Your task to perform on an android device: check google app version Image 0: 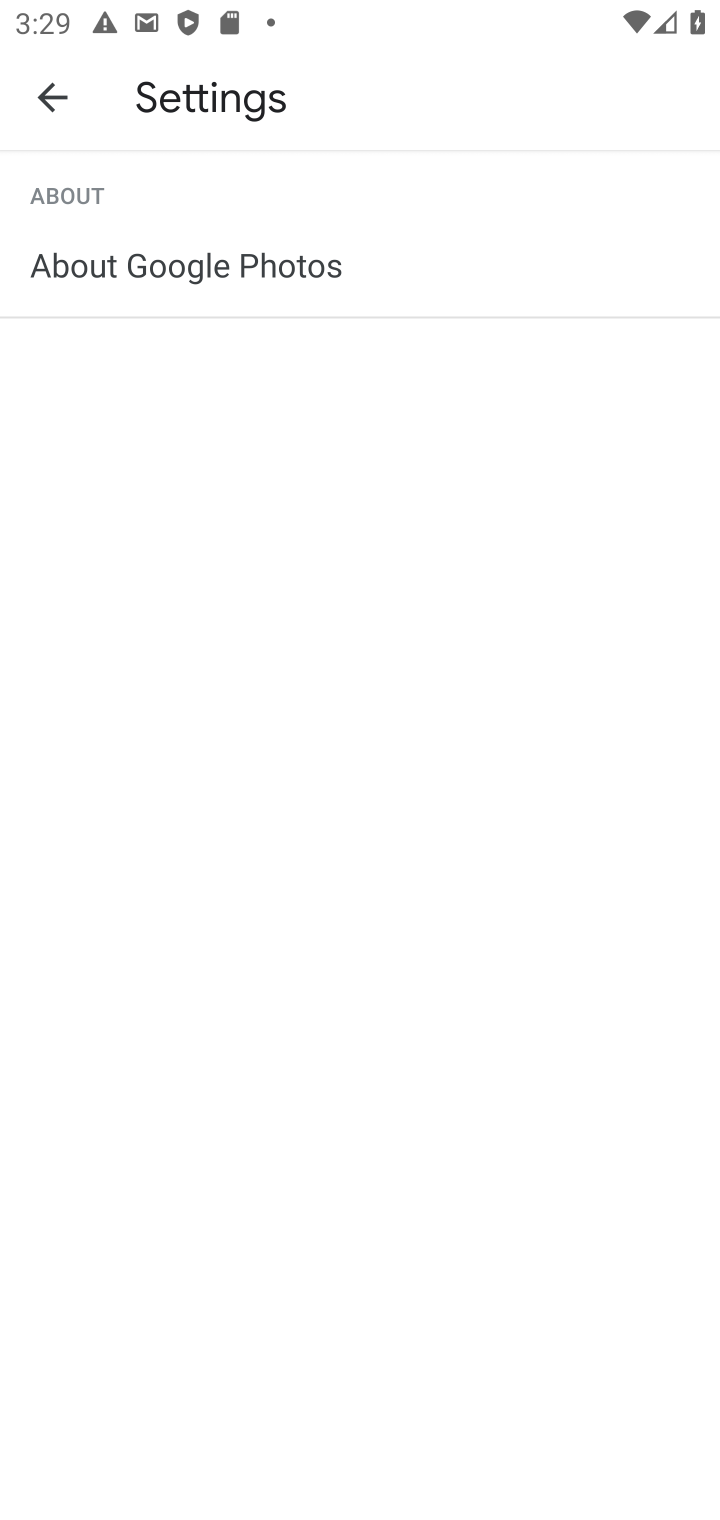
Step 0: press back button
Your task to perform on an android device: check google app version Image 1: 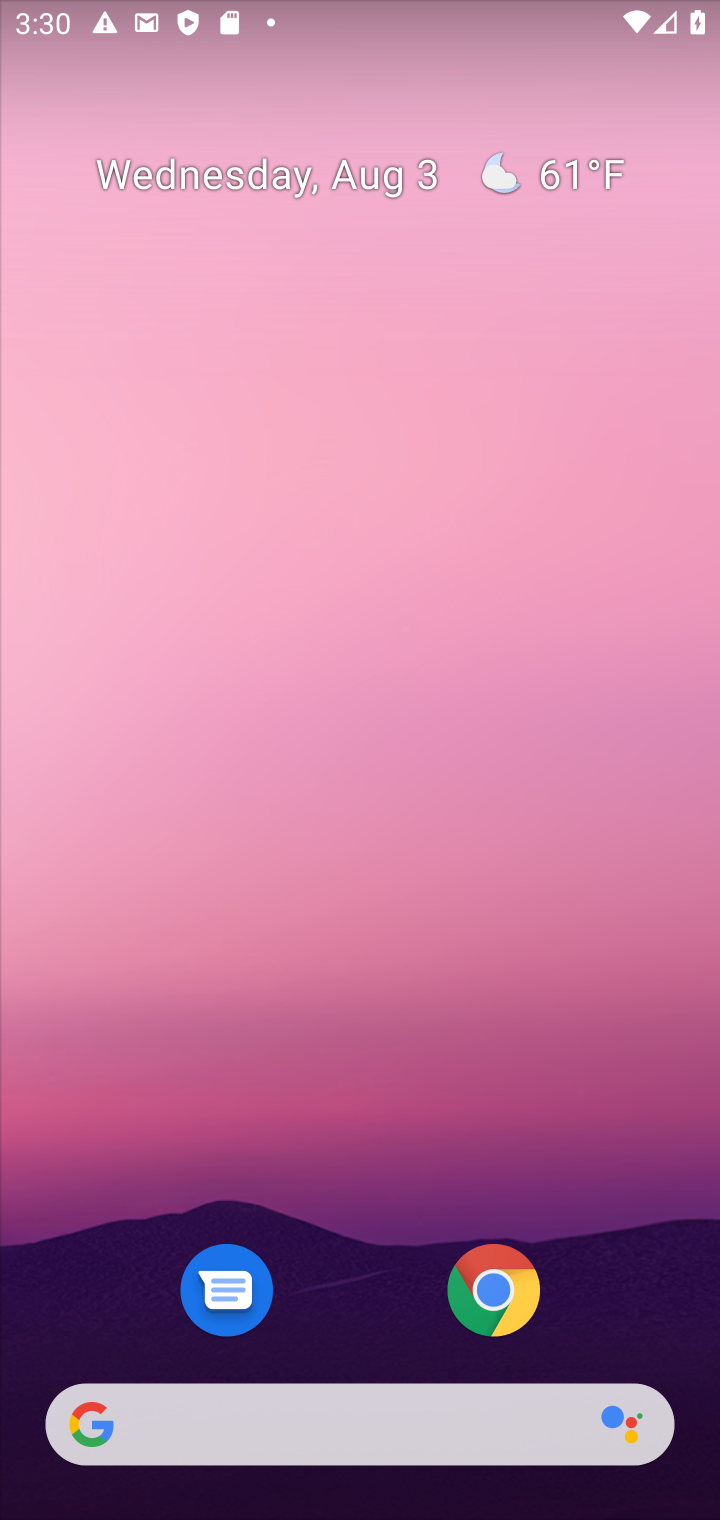
Step 1: drag from (398, 774) to (492, 211)
Your task to perform on an android device: check google app version Image 2: 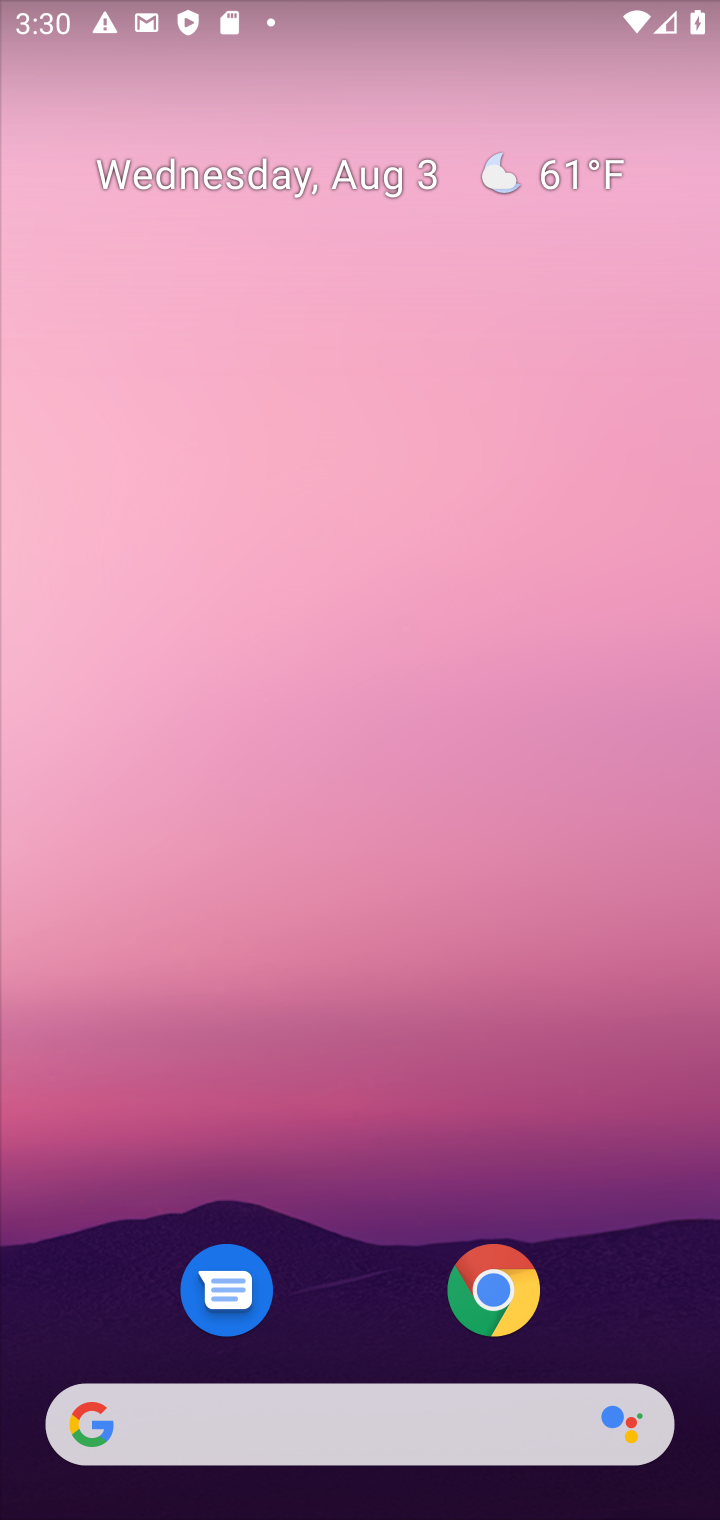
Step 2: drag from (363, 898) to (502, 61)
Your task to perform on an android device: check google app version Image 3: 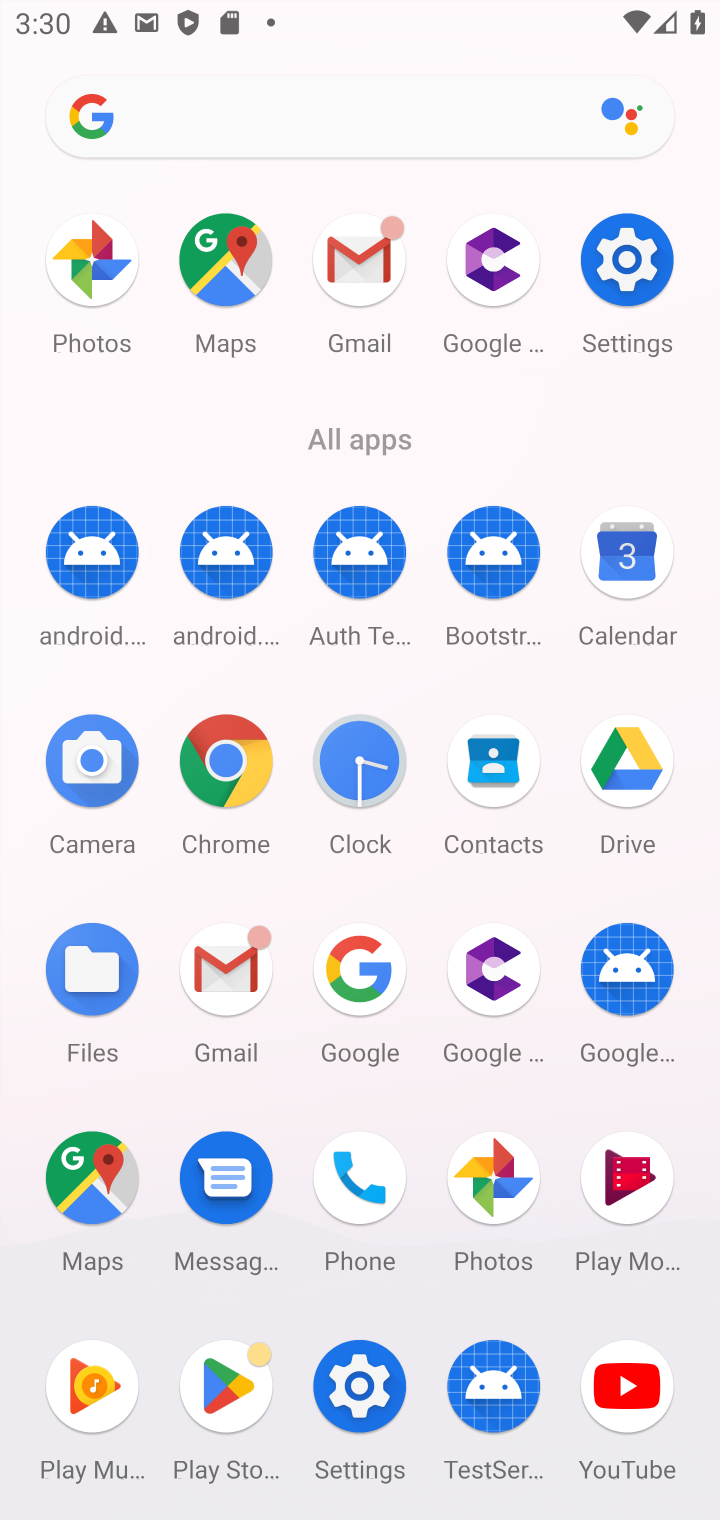
Step 3: click (366, 995)
Your task to perform on an android device: check google app version Image 4: 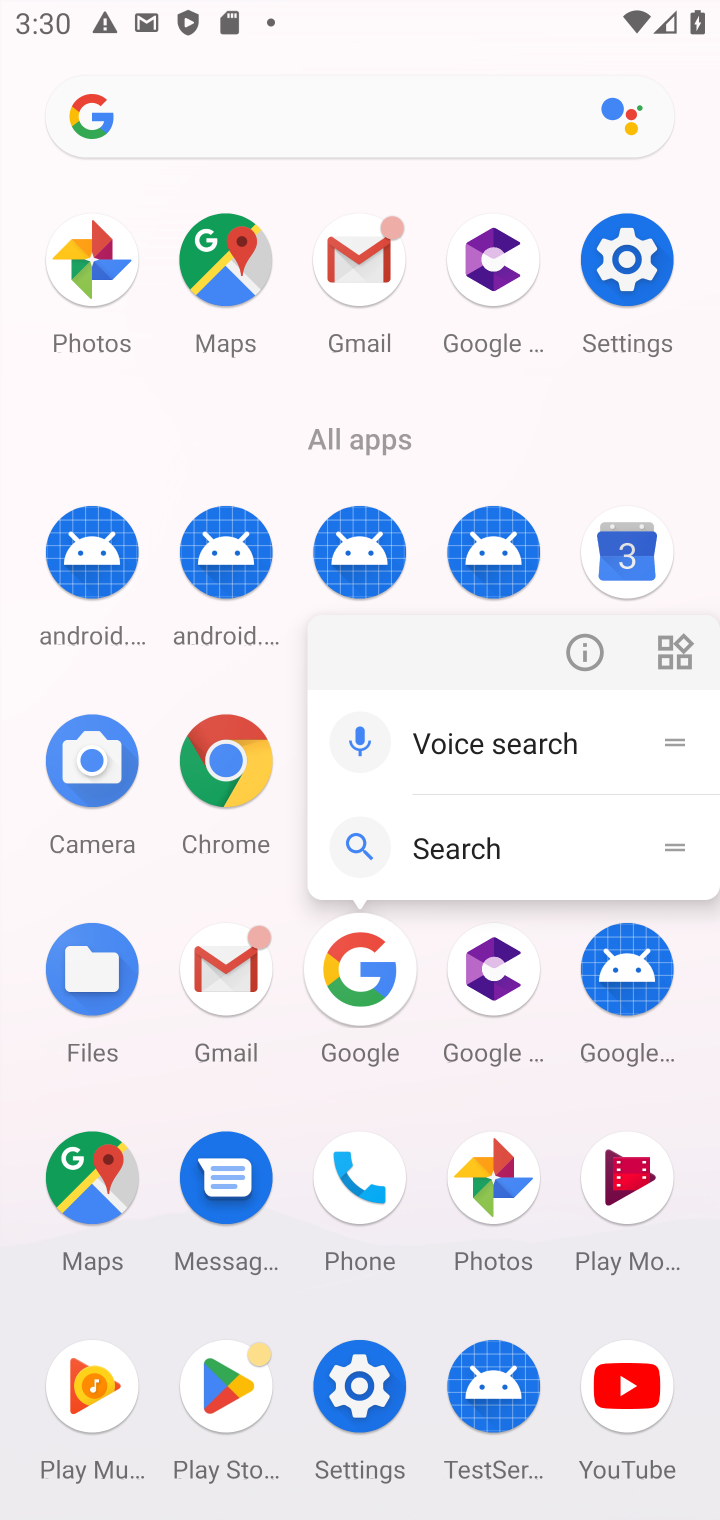
Step 4: click (581, 652)
Your task to perform on an android device: check google app version Image 5: 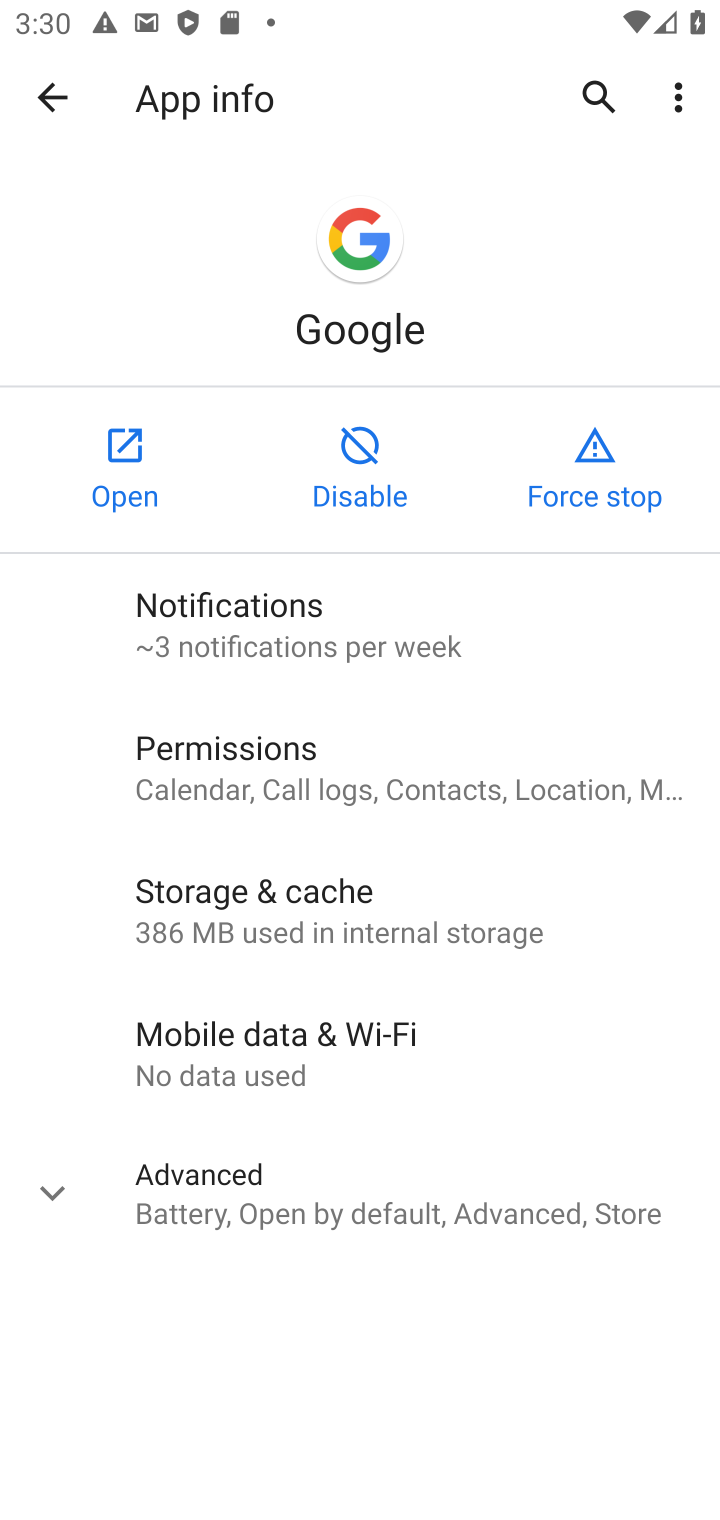
Step 5: click (264, 1188)
Your task to perform on an android device: check google app version Image 6: 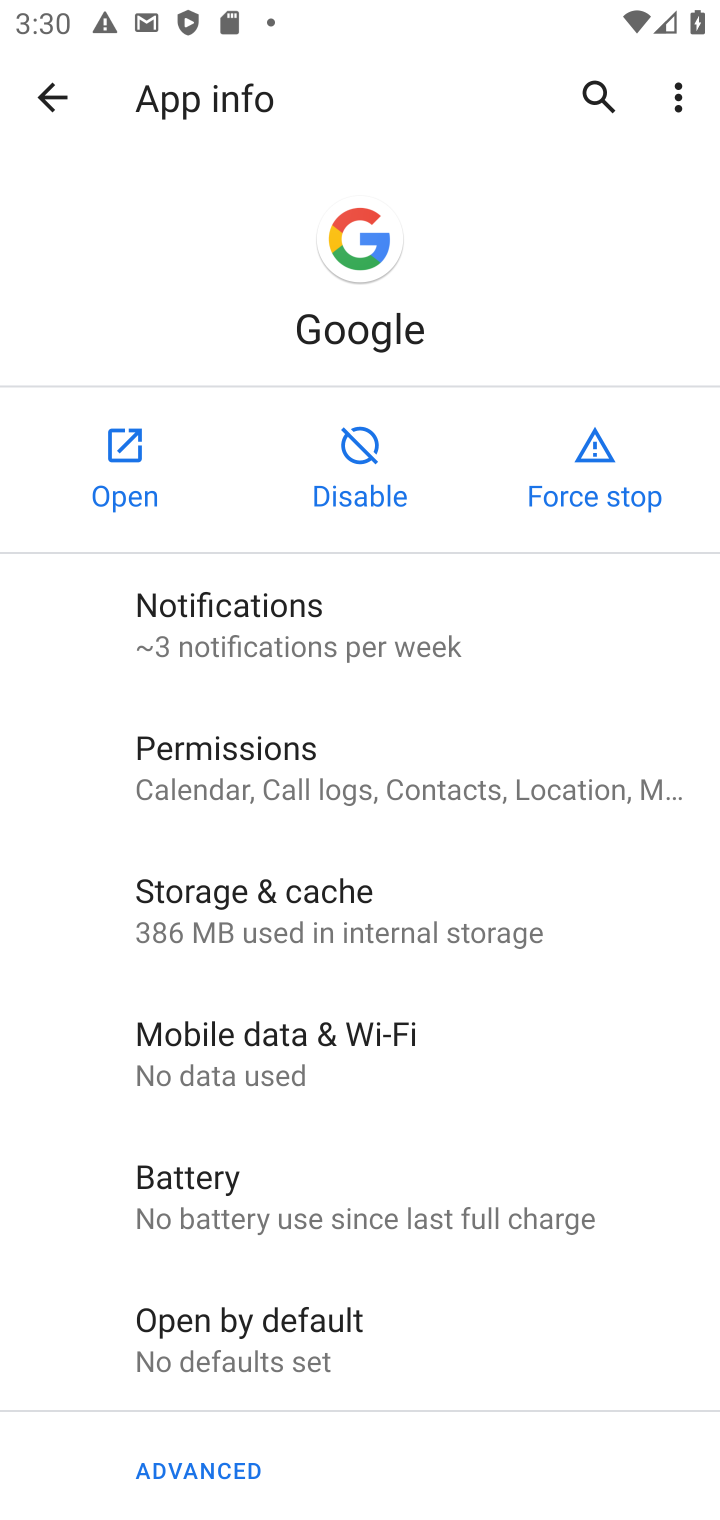
Step 6: task complete